Your task to perform on an android device: Go to wifi settings Image 0: 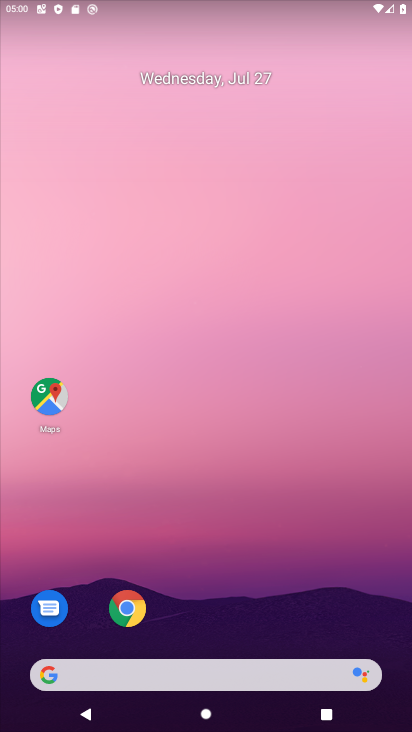
Step 0: press home button
Your task to perform on an android device: Go to wifi settings Image 1: 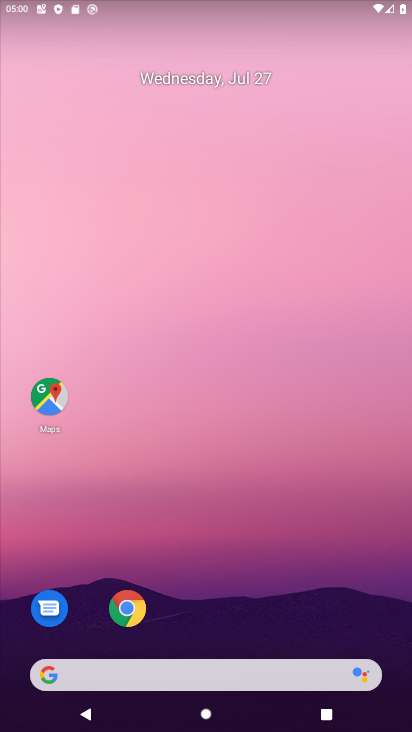
Step 1: drag from (209, 622) to (179, 440)
Your task to perform on an android device: Go to wifi settings Image 2: 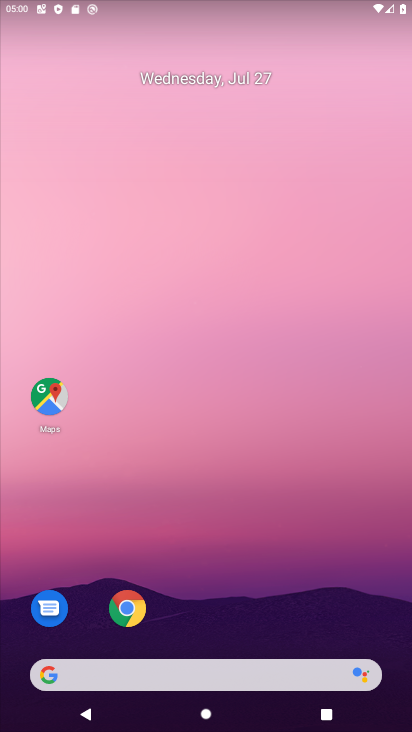
Step 2: drag from (223, 629) to (221, 31)
Your task to perform on an android device: Go to wifi settings Image 3: 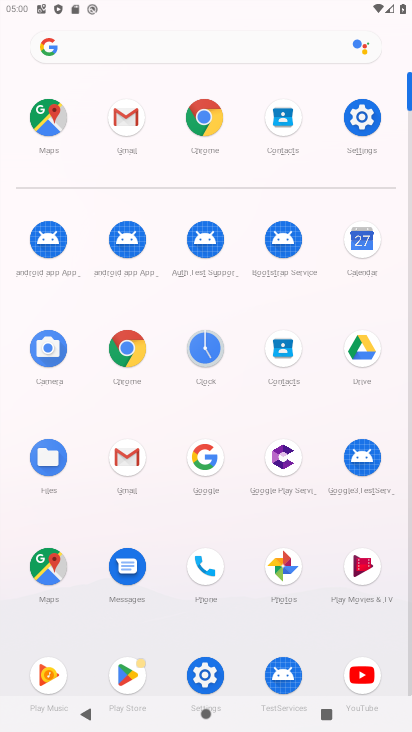
Step 3: click (345, 111)
Your task to perform on an android device: Go to wifi settings Image 4: 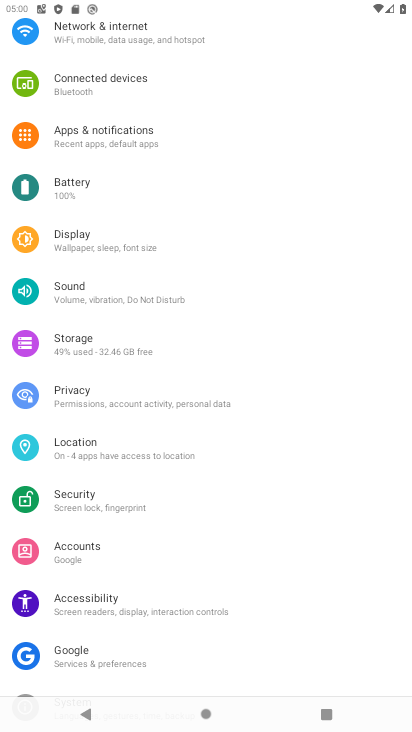
Step 4: click (112, 40)
Your task to perform on an android device: Go to wifi settings Image 5: 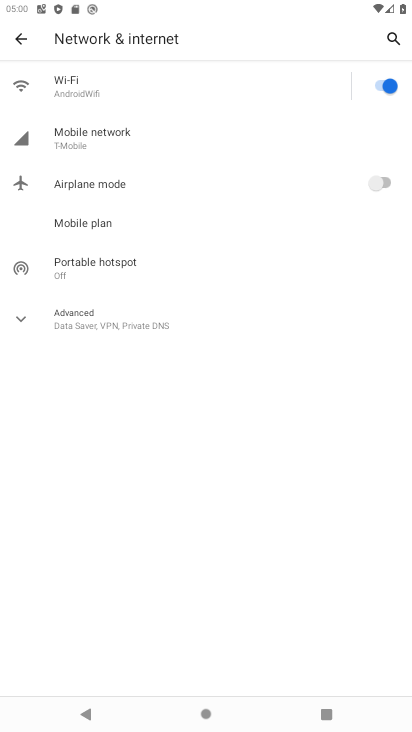
Step 5: click (95, 93)
Your task to perform on an android device: Go to wifi settings Image 6: 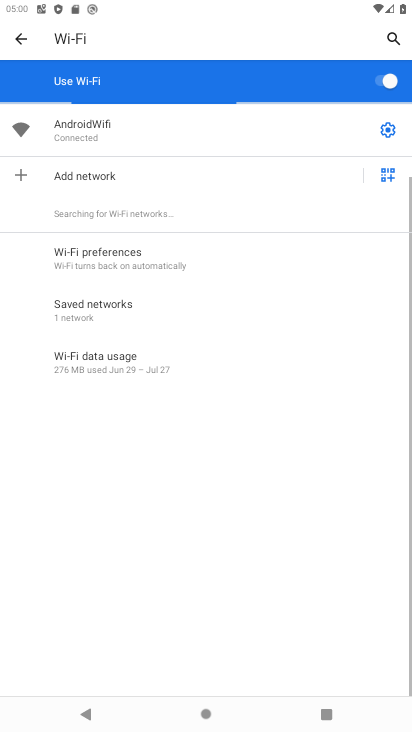
Step 6: task complete